Your task to perform on an android device: Open internet settings Image 0: 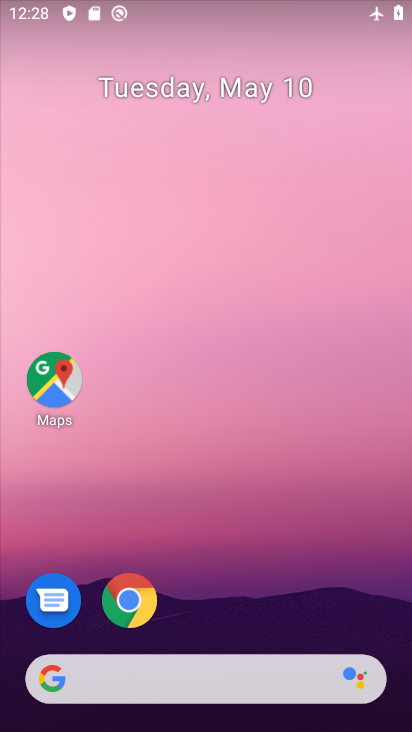
Step 0: drag from (218, 621) to (217, 187)
Your task to perform on an android device: Open internet settings Image 1: 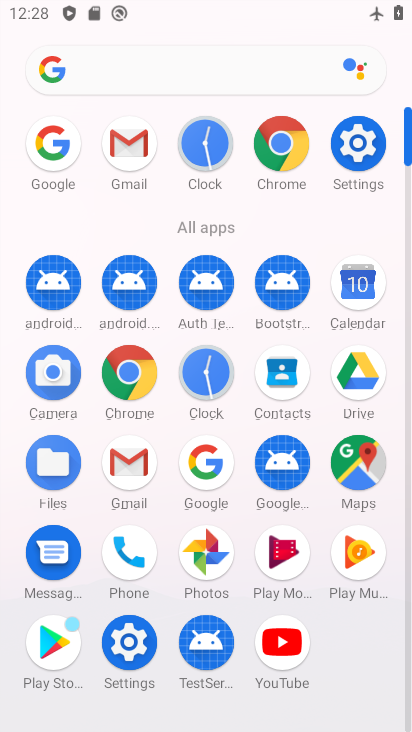
Step 1: click (375, 145)
Your task to perform on an android device: Open internet settings Image 2: 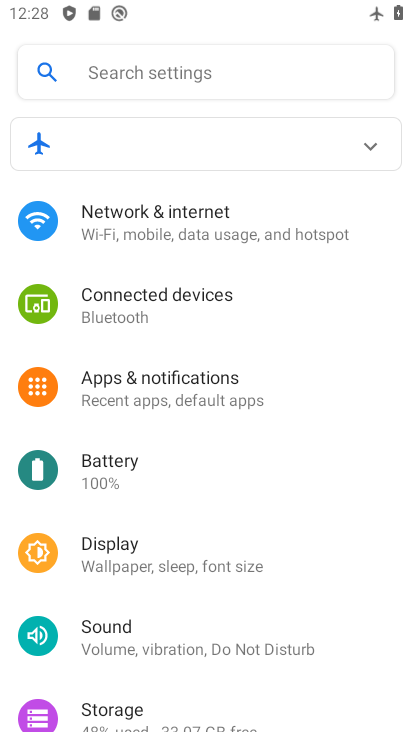
Step 2: click (110, 240)
Your task to perform on an android device: Open internet settings Image 3: 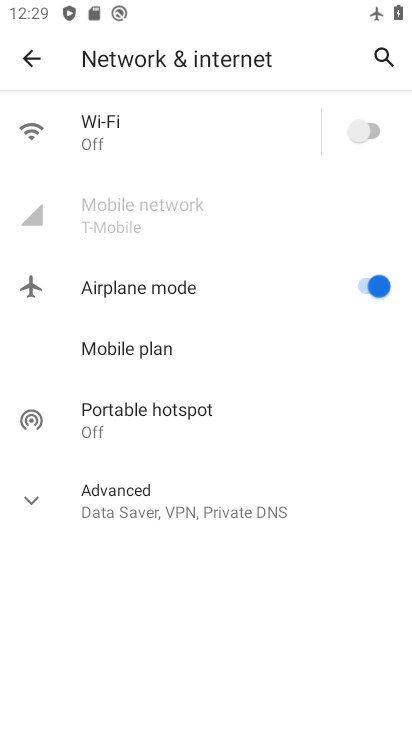
Step 3: click (29, 81)
Your task to perform on an android device: Open internet settings Image 4: 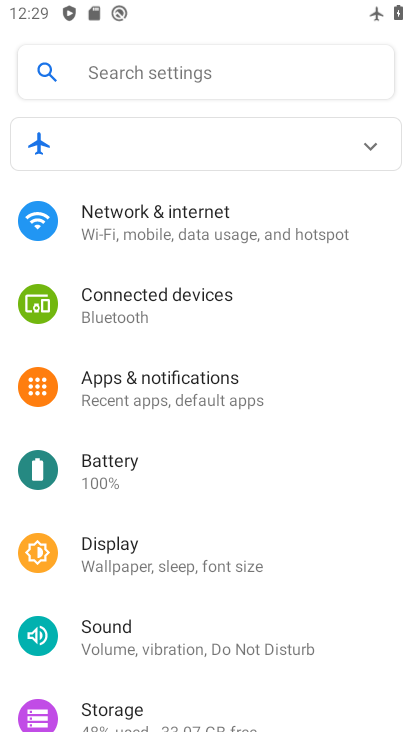
Step 4: task complete